Your task to perform on an android device: install app "Google Chrome" Image 0: 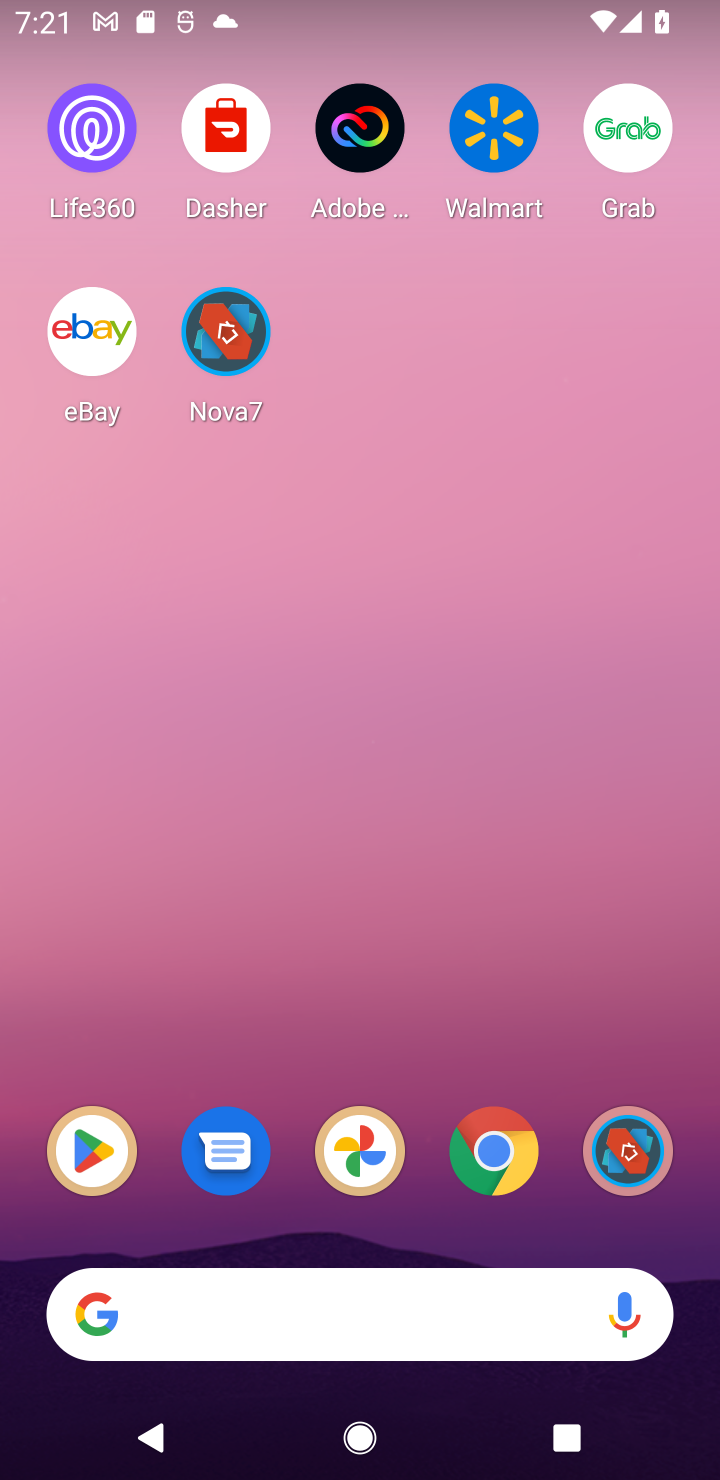
Step 0: click (83, 1172)
Your task to perform on an android device: install app "Google Chrome" Image 1: 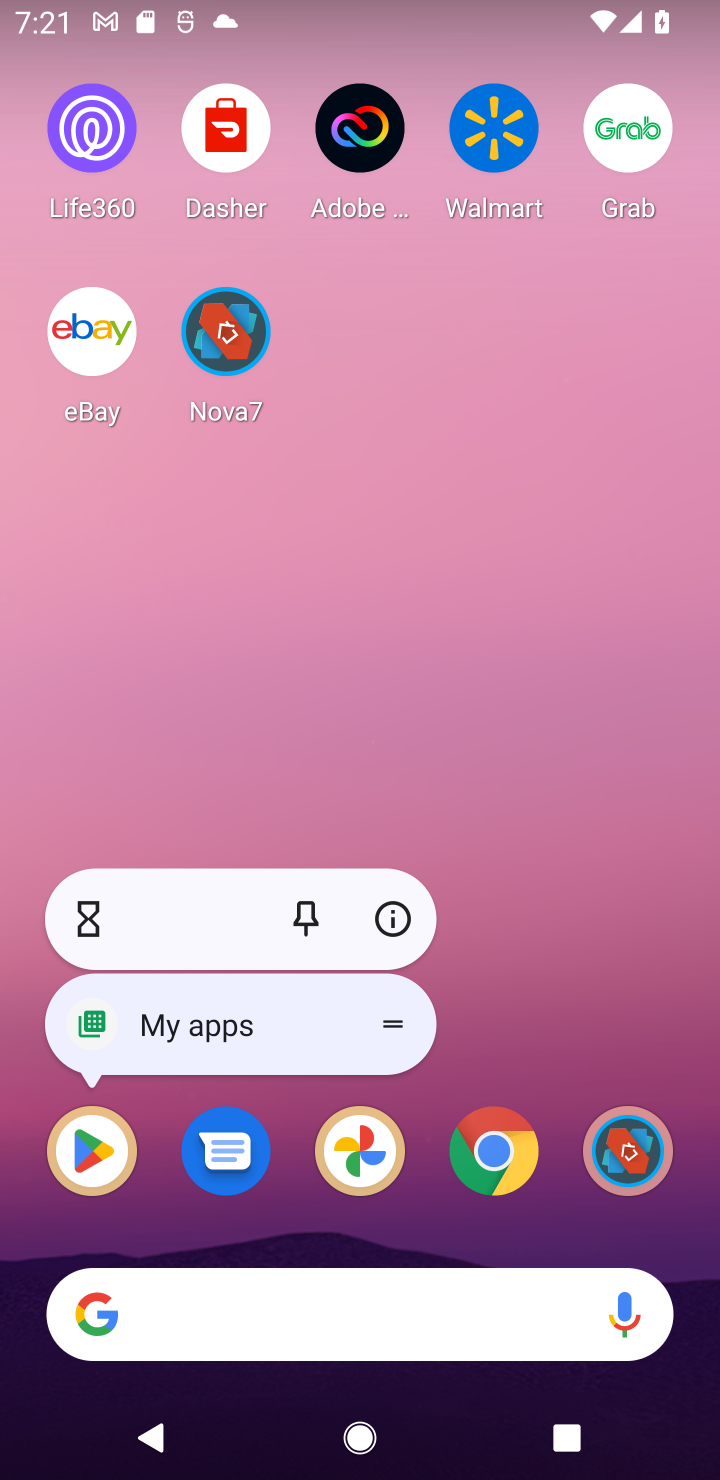
Step 1: click (83, 1172)
Your task to perform on an android device: install app "Google Chrome" Image 2: 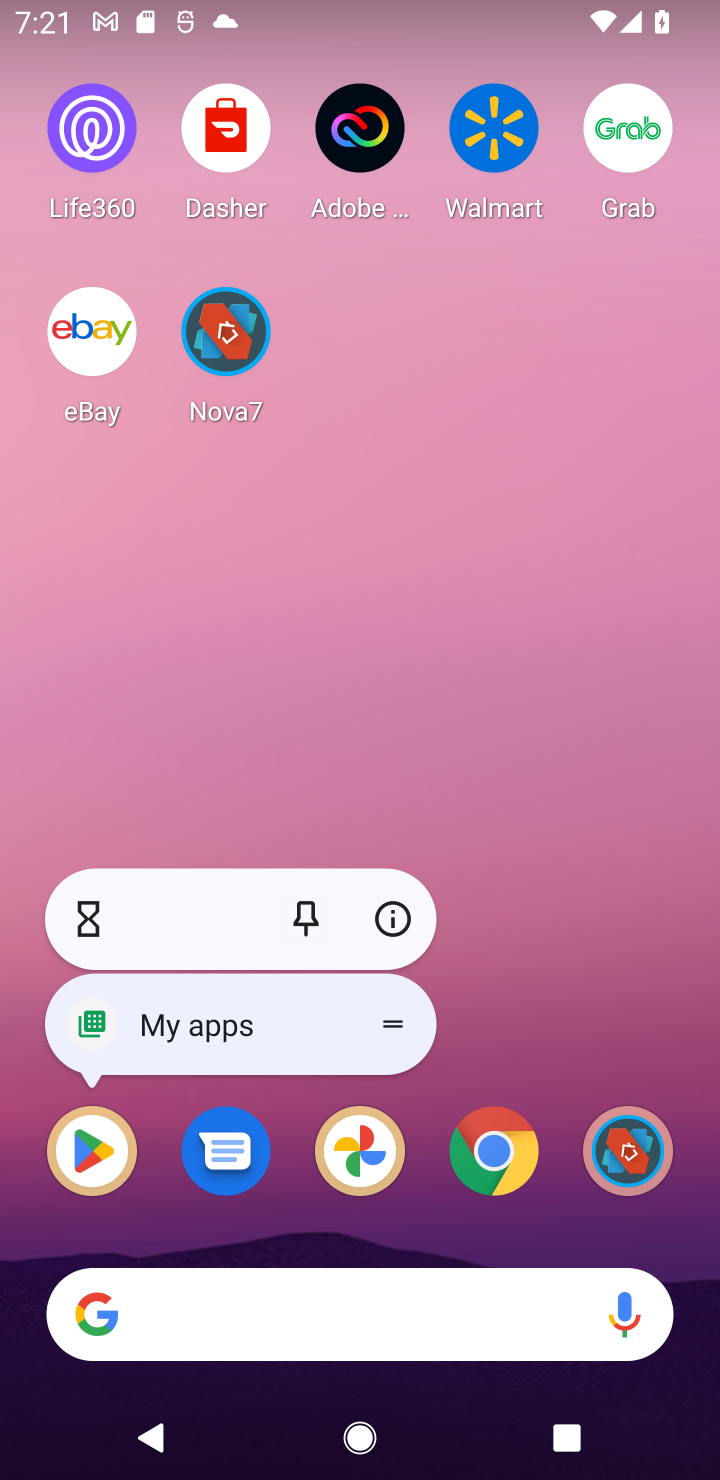
Step 2: click (83, 1172)
Your task to perform on an android device: install app "Google Chrome" Image 3: 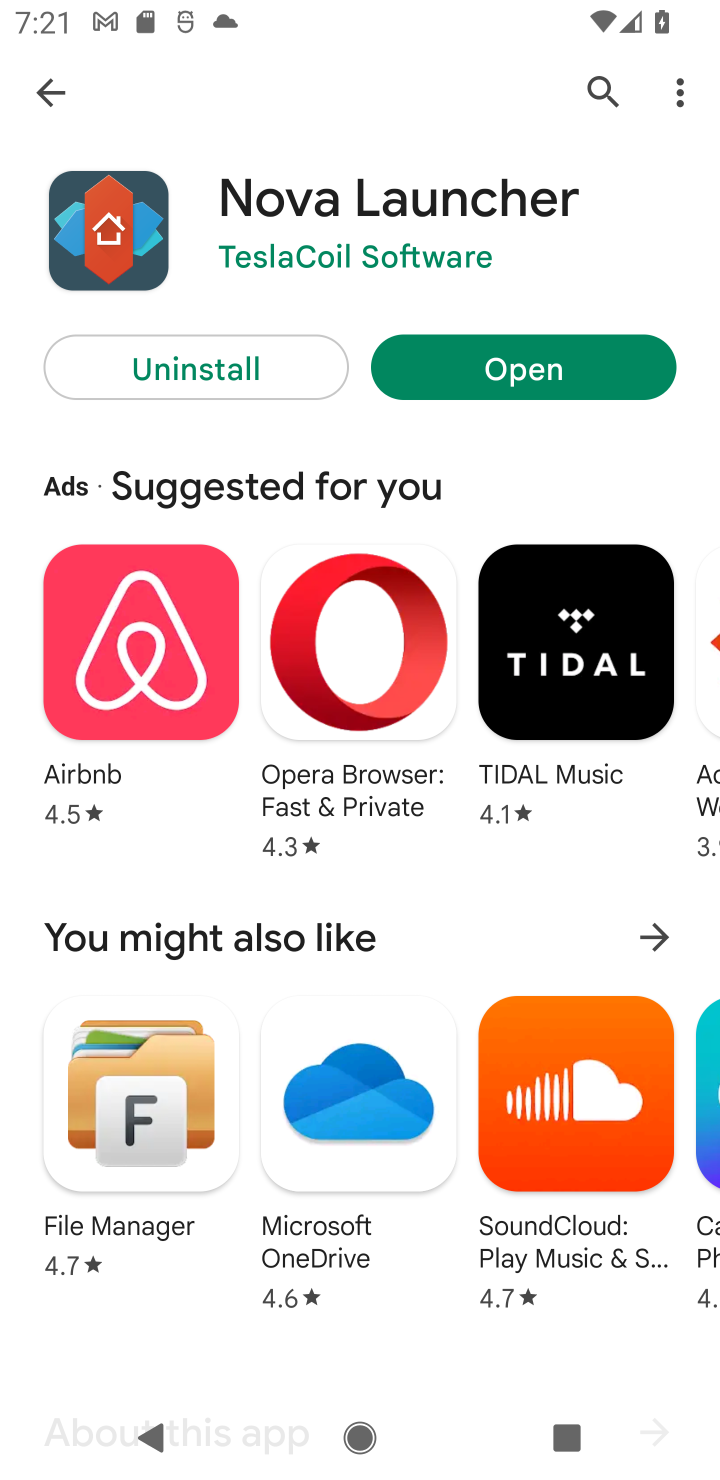
Step 3: click (591, 87)
Your task to perform on an android device: install app "Google Chrome" Image 4: 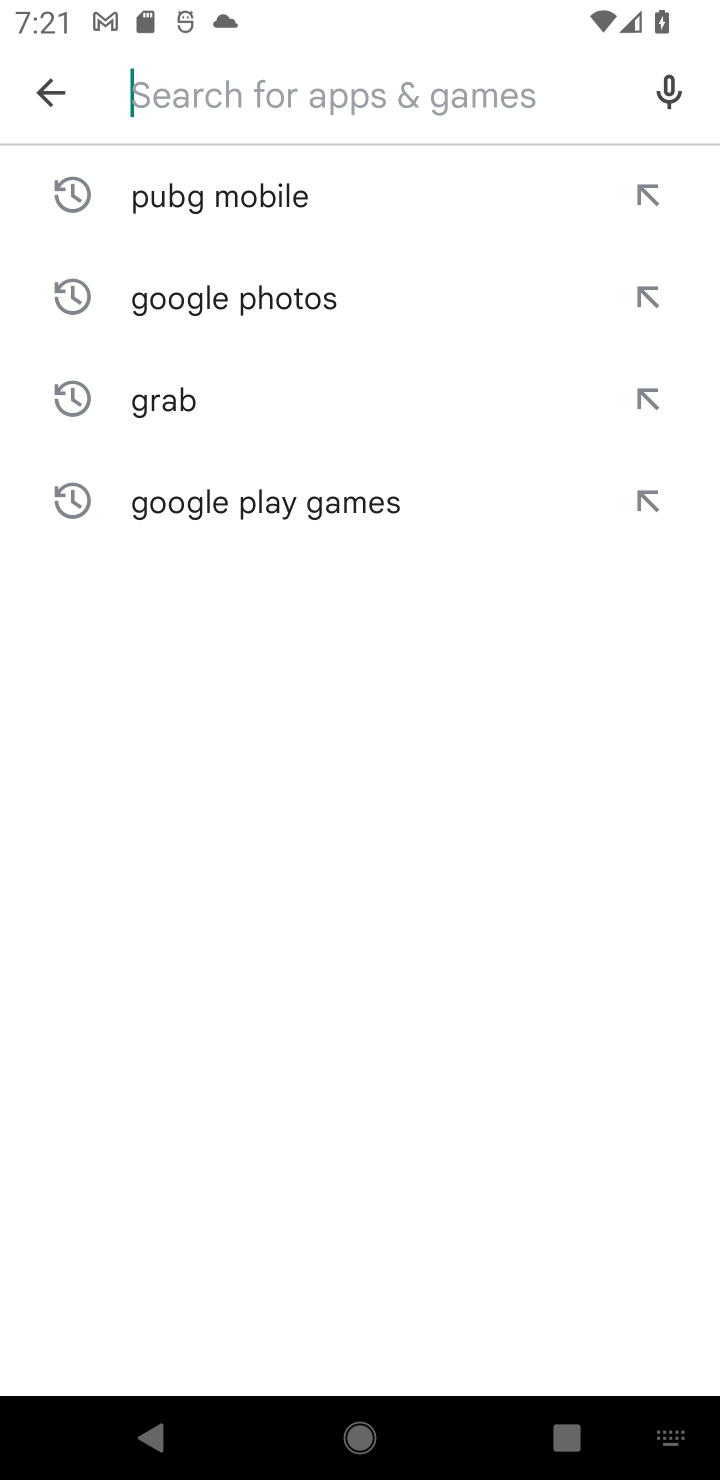
Step 4: click (573, 100)
Your task to perform on an android device: install app "Google Chrome" Image 5: 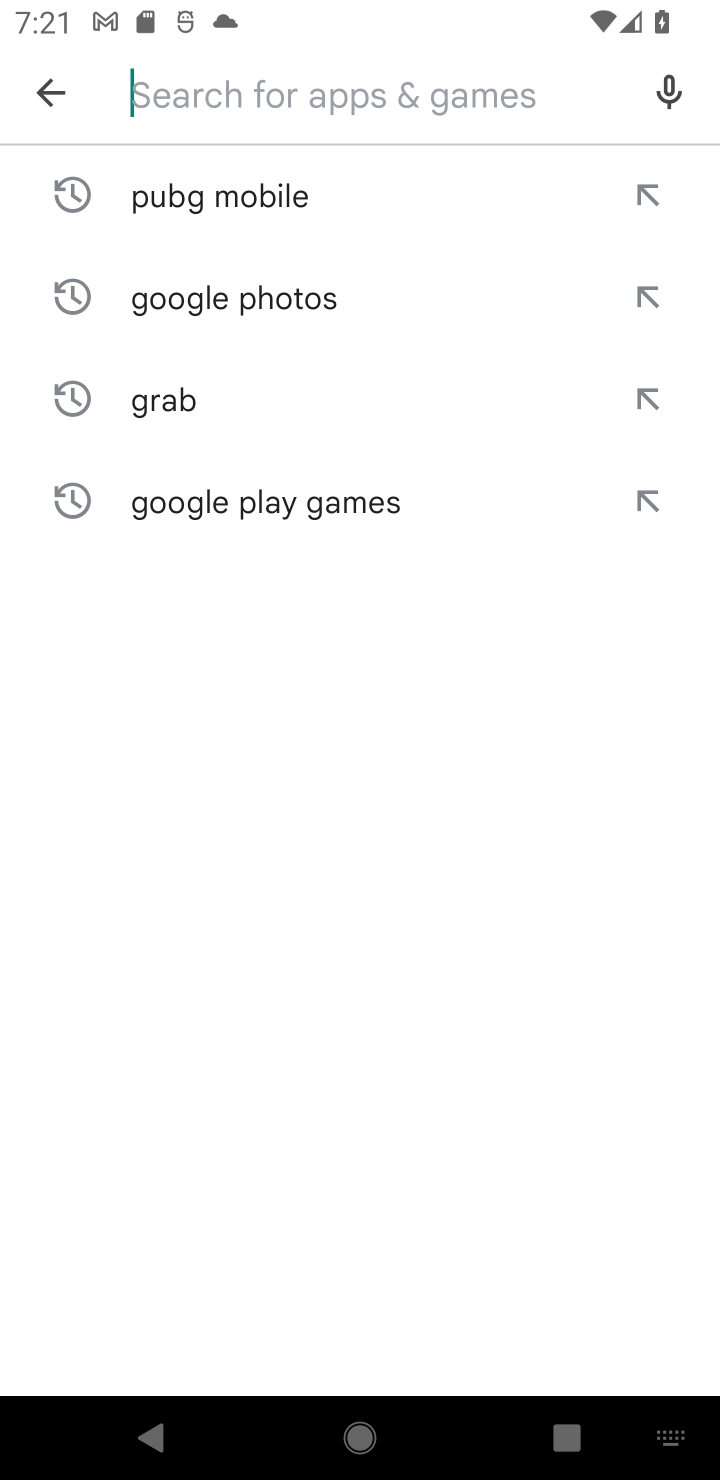
Step 5: type "Google Chrome"
Your task to perform on an android device: install app "Google Chrome" Image 6: 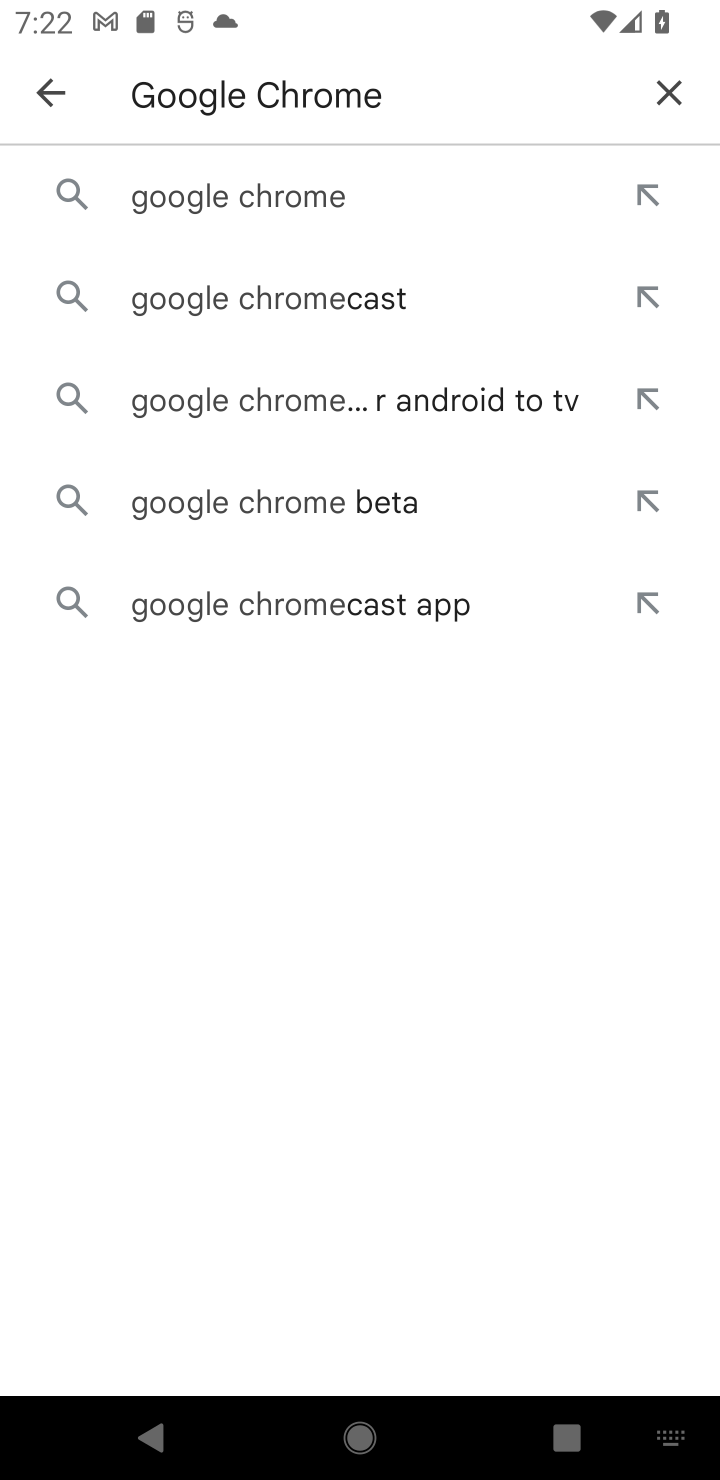
Step 6: click (329, 226)
Your task to perform on an android device: install app "Google Chrome" Image 7: 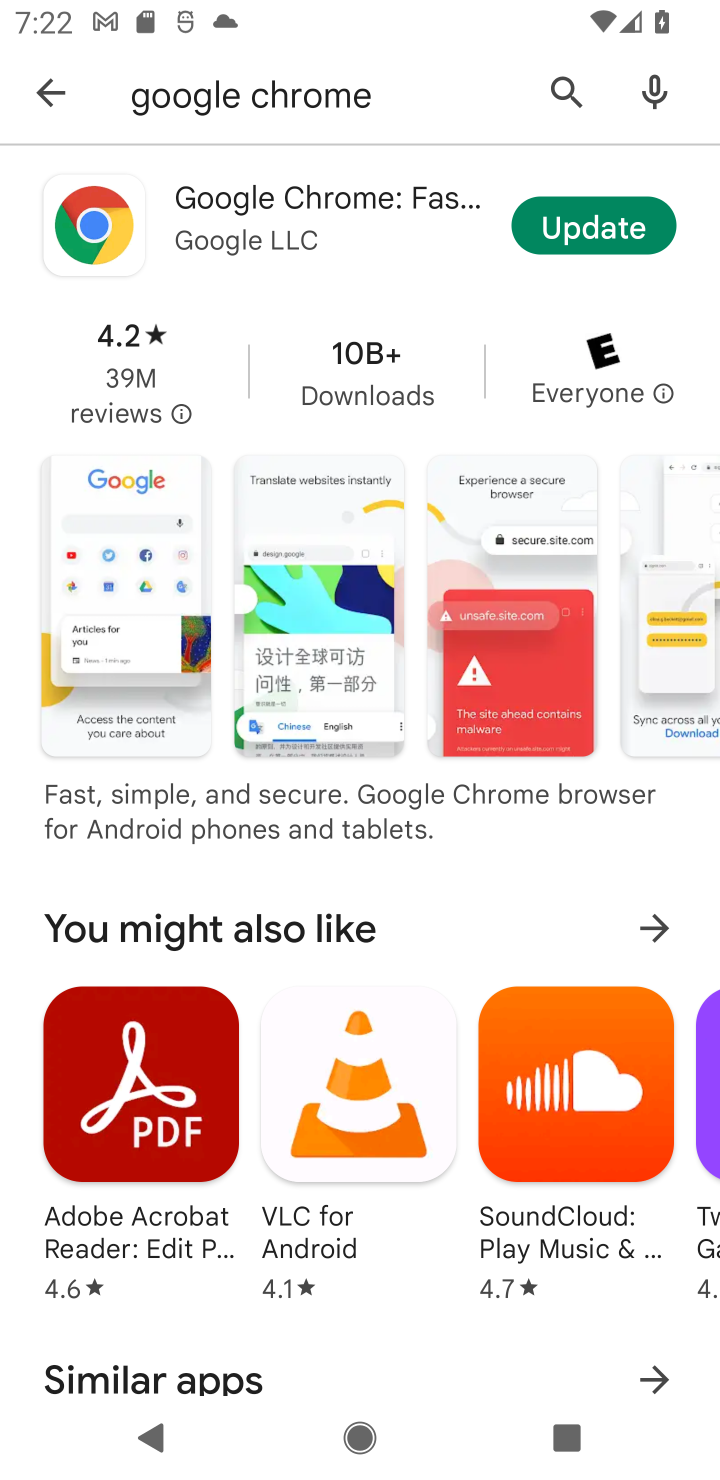
Step 7: click (315, 219)
Your task to perform on an android device: install app "Google Chrome" Image 8: 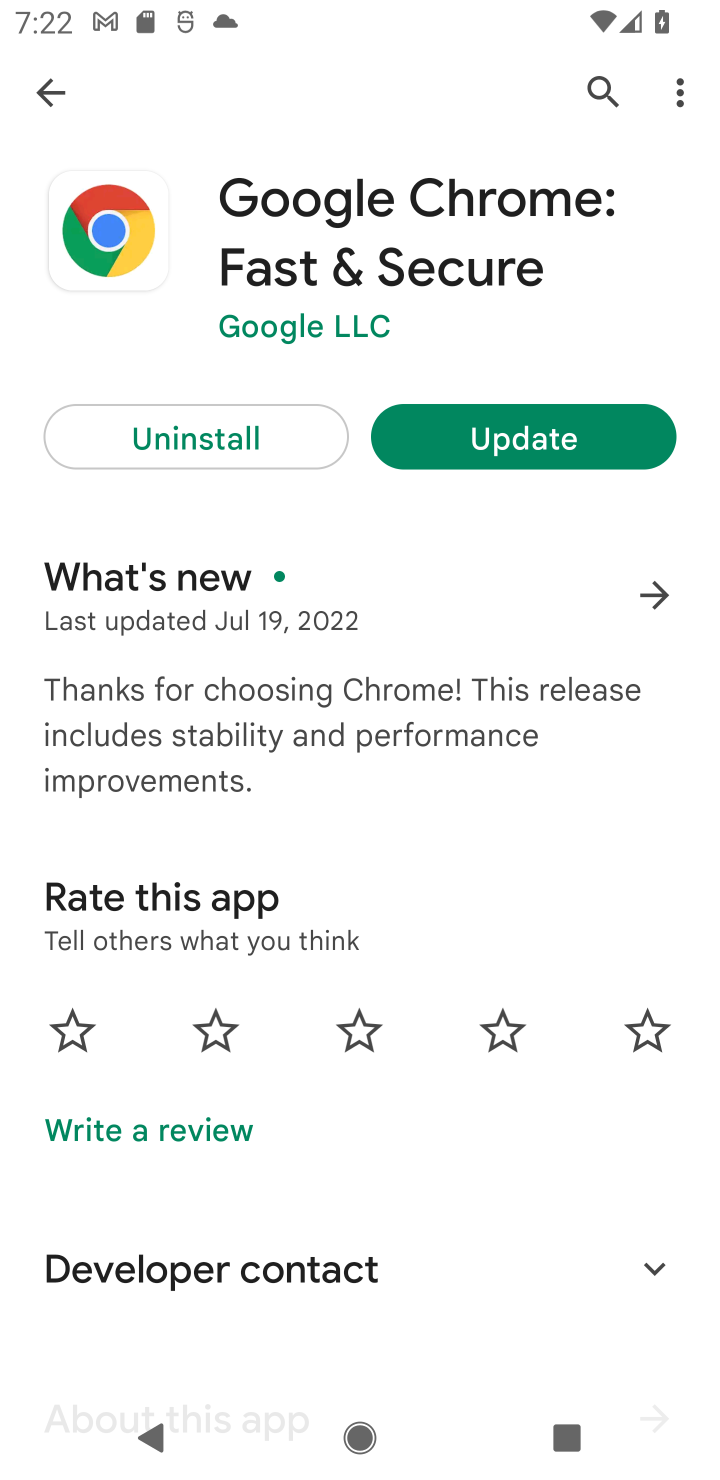
Step 8: task complete